Your task to perform on an android device: open wifi settings Image 0: 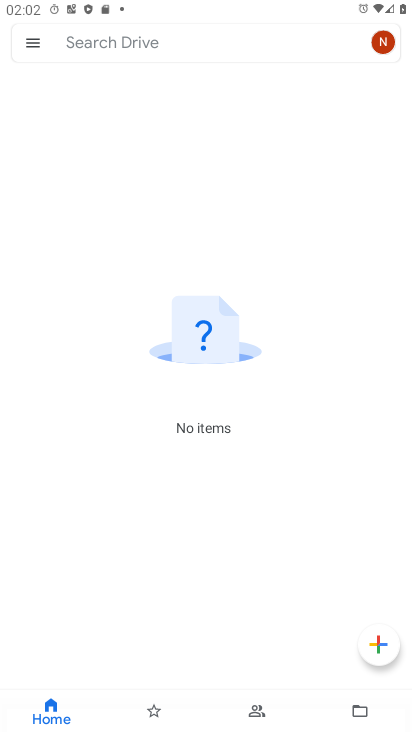
Step 0: press home button
Your task to perform on an android device: open wifi settings Image 1: 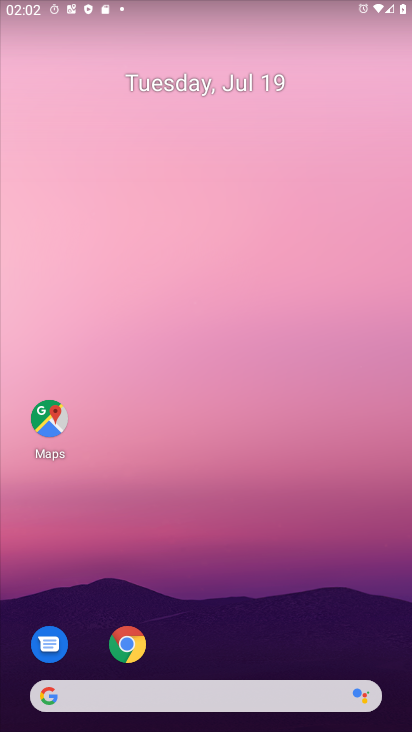
Step 1: drag from (227, 725) to (228, 146)
Your task to perform on an android device: open wifi settings Image 2: 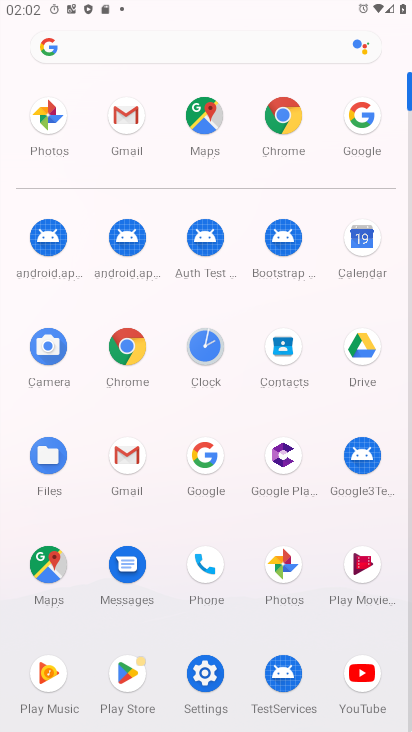
Step 2: click (200, 675)
Your task to perform on an android device: open wifi settings Image 3: 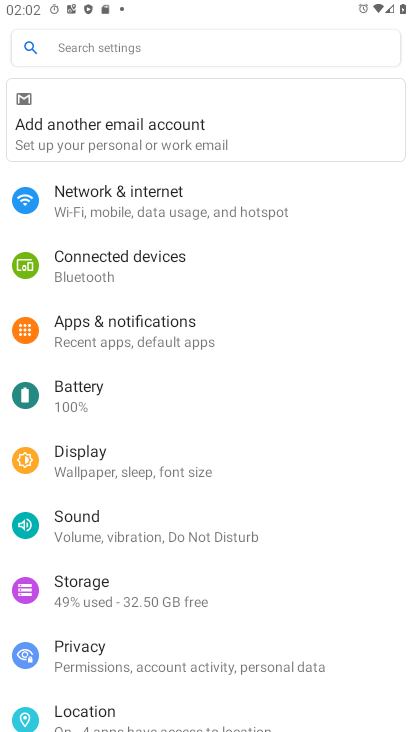
Step 3: click (131, 197)
Your task to perform on an android device: open wifi settings Image 4: 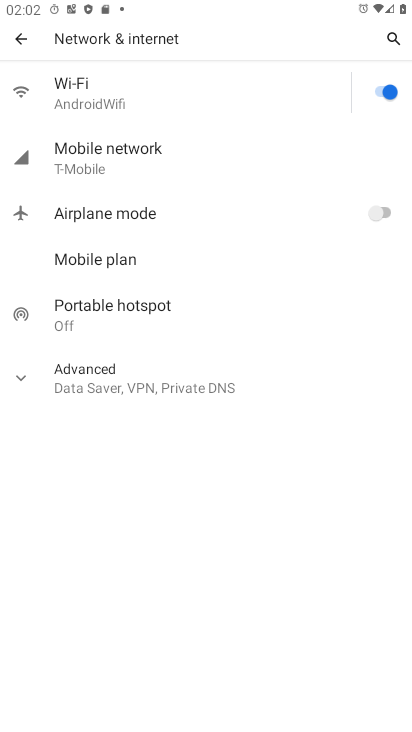
Step 4: click (86, 89)
Your task to perform on an android device: open wifi settings Image 5: 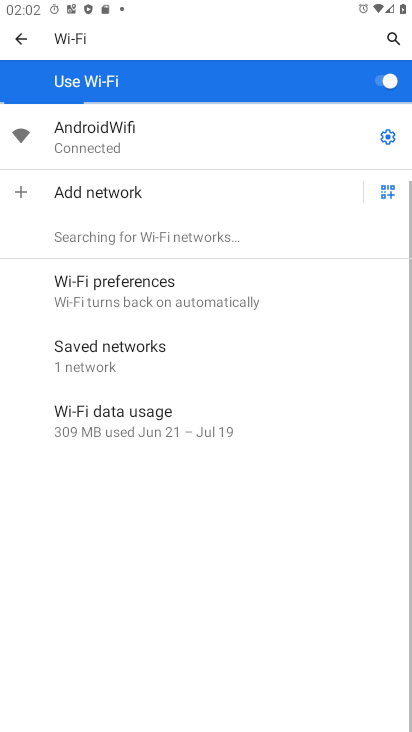
Step 5: task complete